Your task to perform on an android device: What's the weather? Image 0: 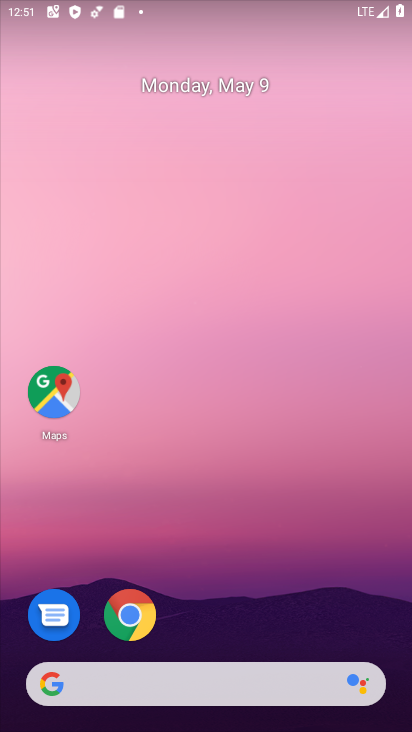
Step 0: drag from (6, 183) to (399, 396)
Your task to perform on an android device: What's the weather? Image 1: 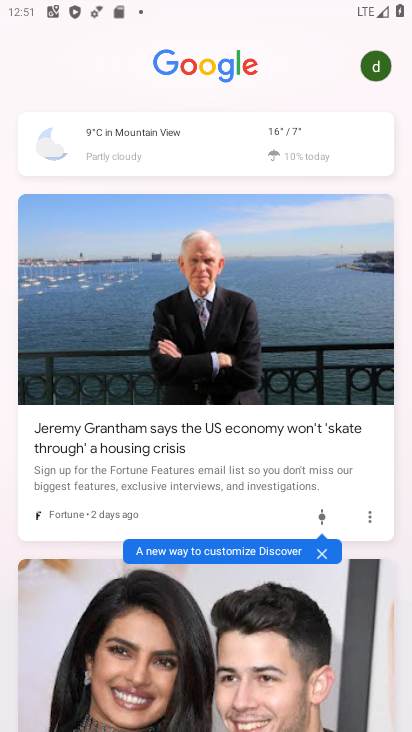
Step 1: click (296, 144)
Your task to perform on an android device: What's the weather? Image 2: 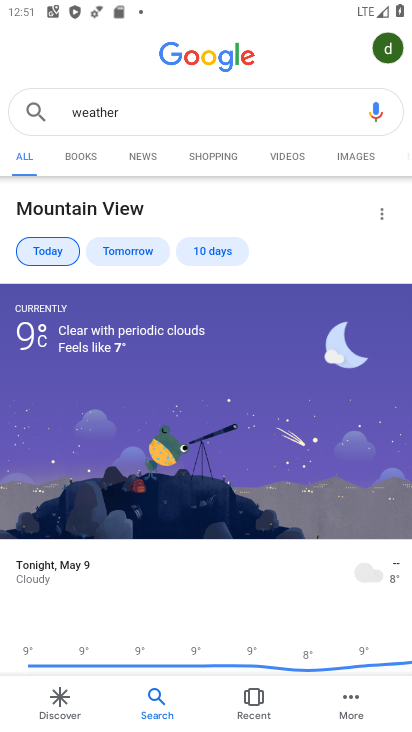
Step 2: task complete